Your task to perform on an android device: stop showing notifications on the lock screen Image 0: 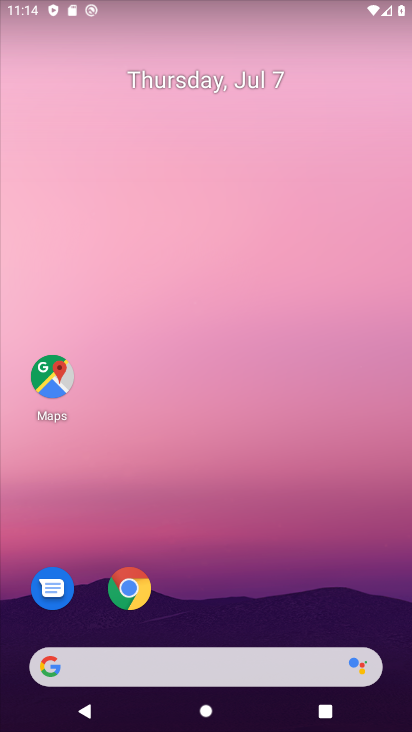
Step 0: drag from (215, 631) to (246, 105)
Your task to perform on an android device: stop showing notifications on the lock screen Image 1: 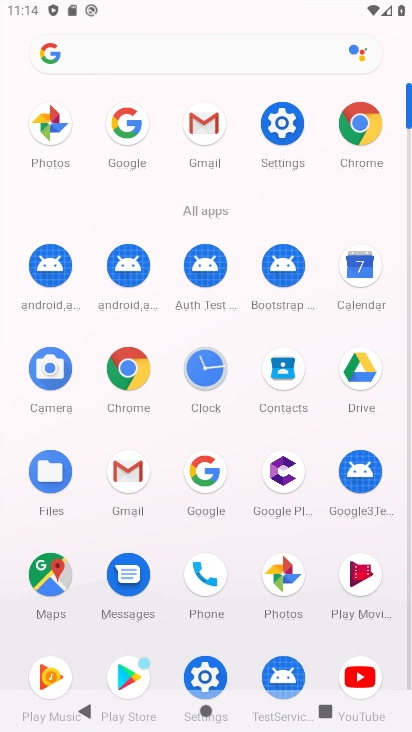
Step 1: click (279, 125)
Your task to perform on an android device: stop showing notifications on the lock screen Image 2: 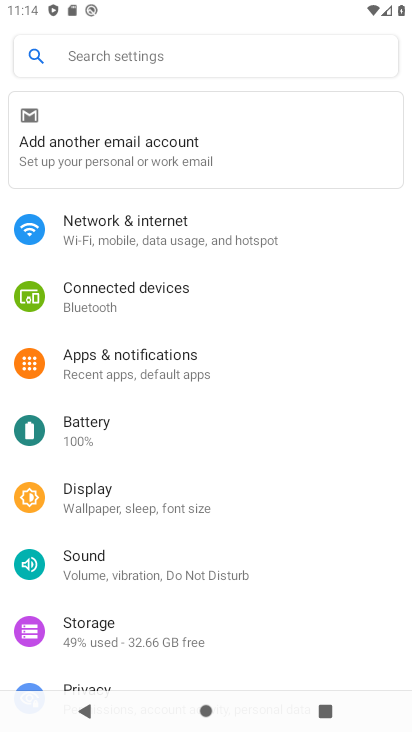
Step 2: click (178, 360)
Your task to perform on an android device: stop showing notifications on the lock screen Image 3: 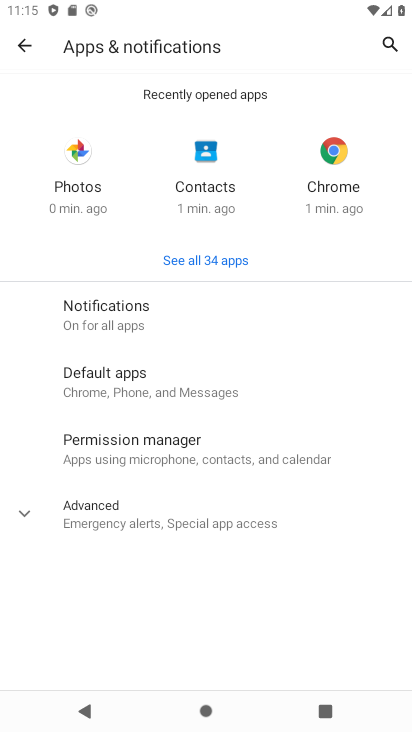
Step 3: click (128, 322)
Your task to perform on an android device: stop showing notifications on the lock screen Image 4: 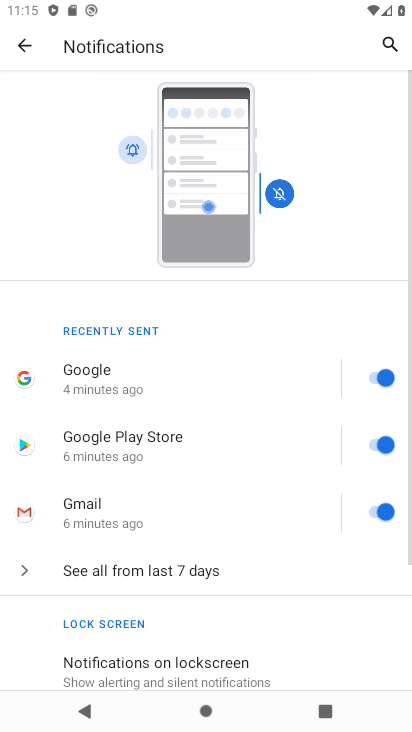
Step 4: click (176, 654)
Your task to perform on an android device: stop showing notifications on the lock screen Image 5: 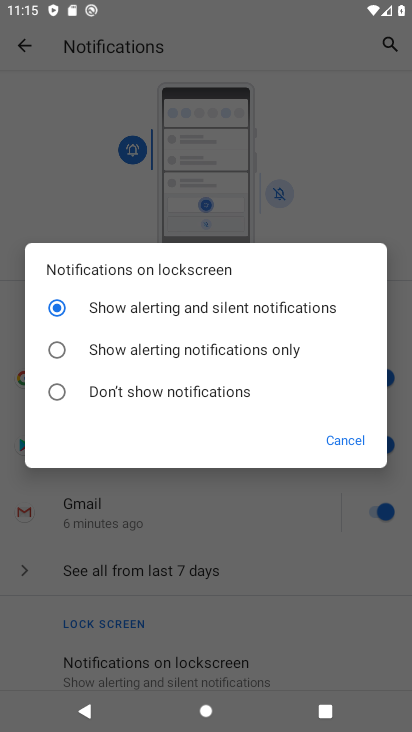
Step 5: click (58, 399)
Your task to perform on an android device: stop showing notifications on the lock screen Image 6: 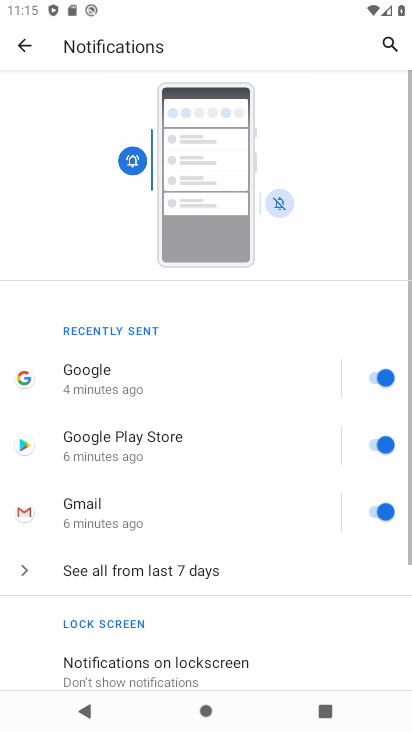
Step 6: task complete